Your task to perform on an android device: turn off smart reply in the gmail app Image 0: 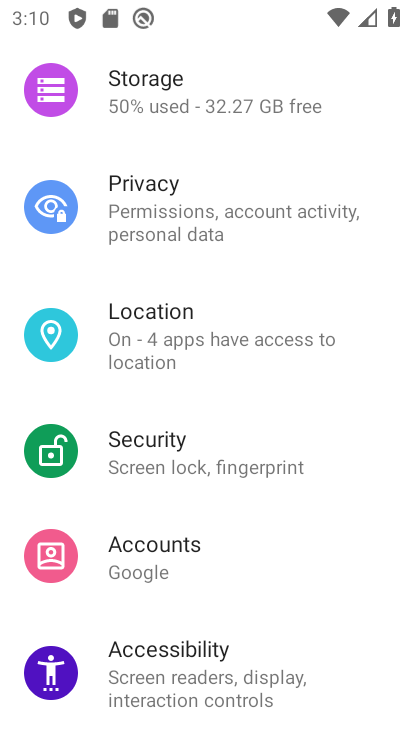
Step 0: press home button
Your task to perform on an android device: turn off smart reply in the gmail app Image 1: 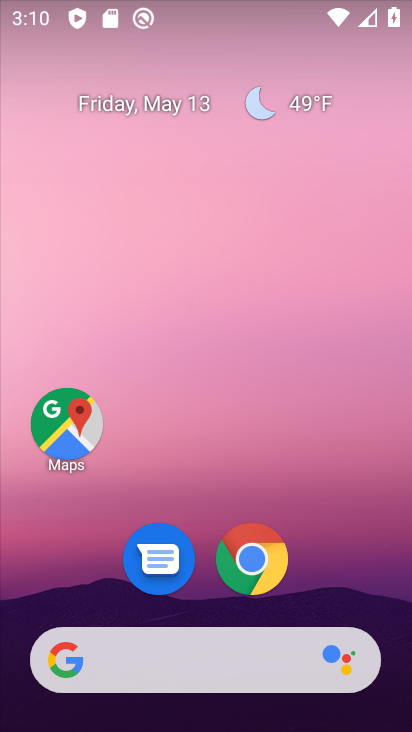
Step 1: drag from (388, 637) to (265, 0)
Your task to perform on an android device: turn off smart reply in the gmail app Image 2: 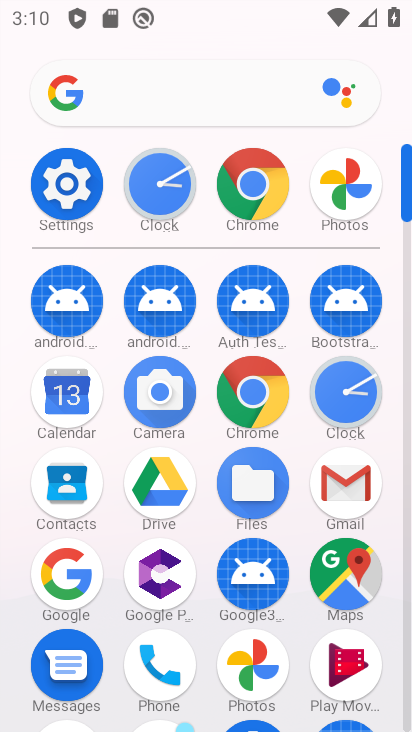
Step 2: click (406, 702)
Your task to perform on an android device: turn off smart reply in the gmail app Image 3: 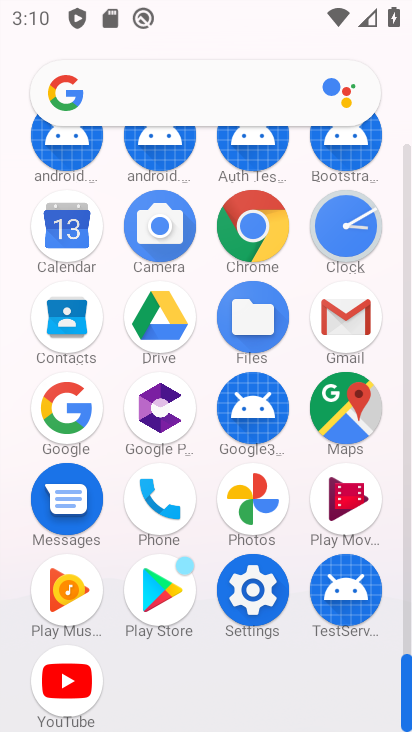
Step 3: click (343, 314)
Your task to perform on an android device: turn off smart reply in the gmail app Image 4: 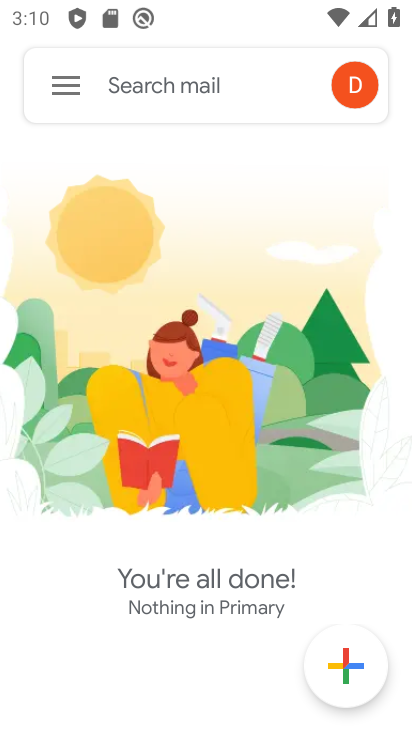
Step 4: click (61, 84)
Your task to perform on an android device: turn off smart reply in the gmail app Image 5: 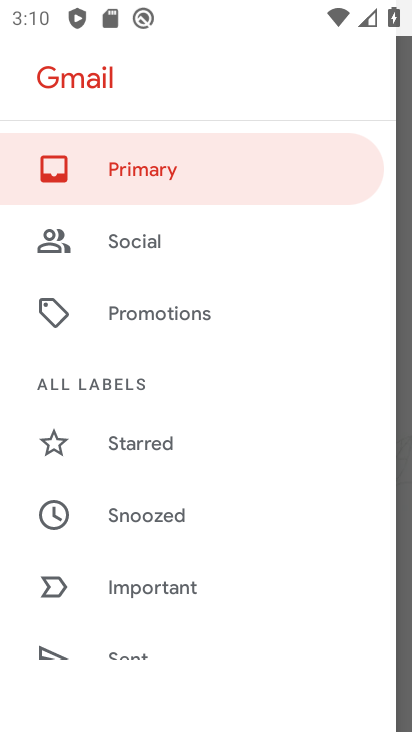
Step 5: drag from (251, 650) to (253, 111)
Your task to perform on an android device: turn off smart reply in the gmail app Image 6: 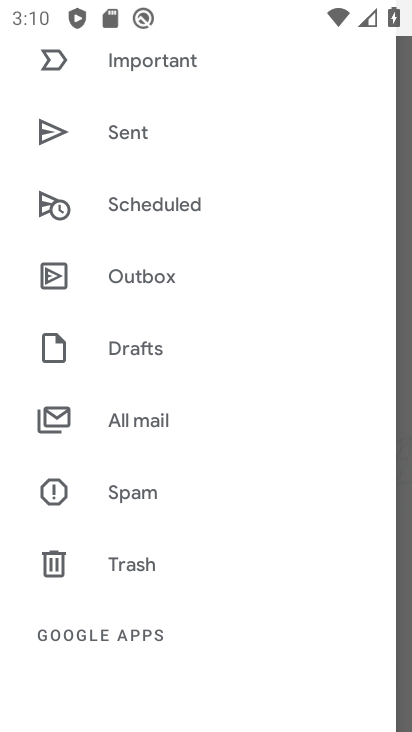
Step 6: drag from (182, 619) to (207, 156)
Your task to perform on an android device: turn off smart reply in the gmail app Image 7: 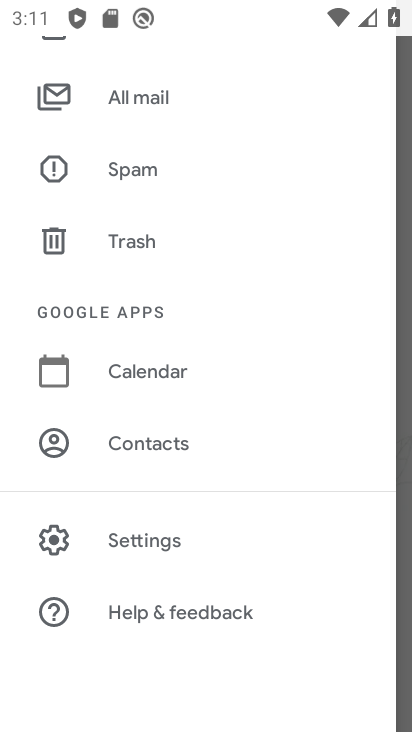
Step 7: click (116, 535)
Your task to perform on an android device: turn off smart reply in the gmail app Image 8: 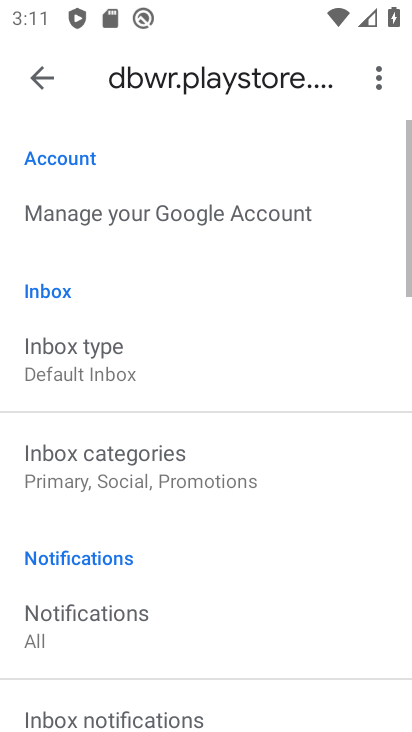
Step 8: drag from (275, 656) to (226, 124)
Your task to perform on an android device: turn off smart reply in the gmail app Image 9: 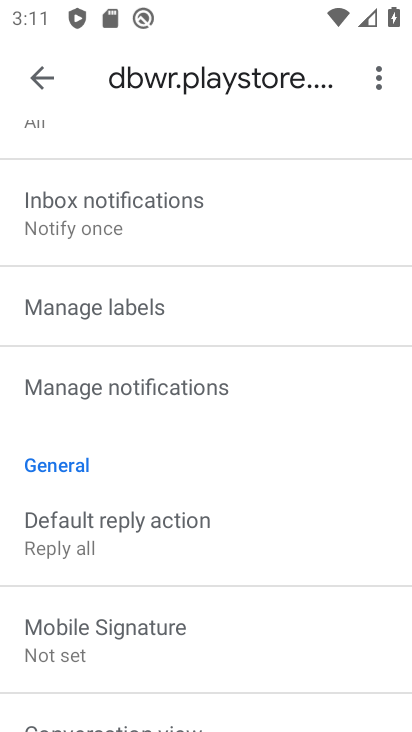
Step 9: drag from (217, 626) to (257, 250)
Your task to perform on an android device: turn off smart reply in the gmail app Image 10: 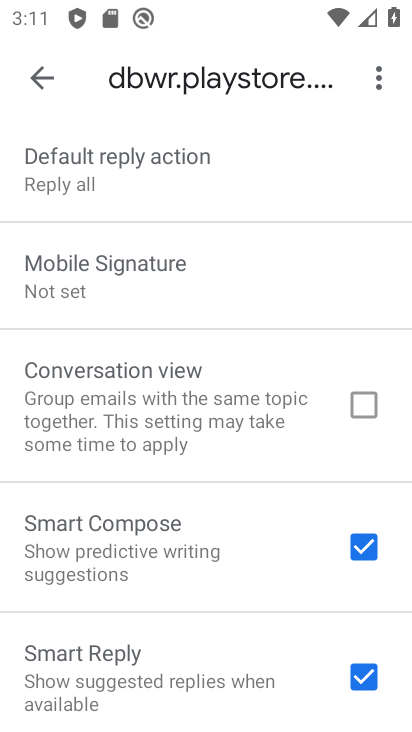
Step 10: drag from (222, 605) to (224, 231)
Your task to perform on an android device: turn off smart reply in the gmail app Image 11: 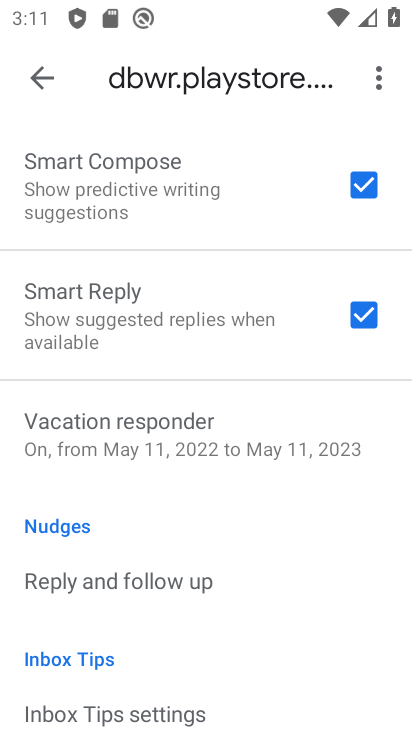
Step 11: click (368, 317)
Your task to perform on an android device: turn off smart reply in the gmail app Image 12: 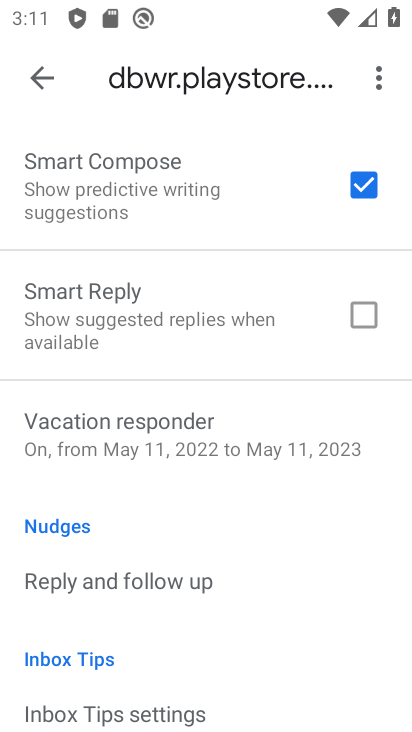
Step 12: task complete